Your task to perform on an android device: see tabs open on other devices in the chrome app Image 0: 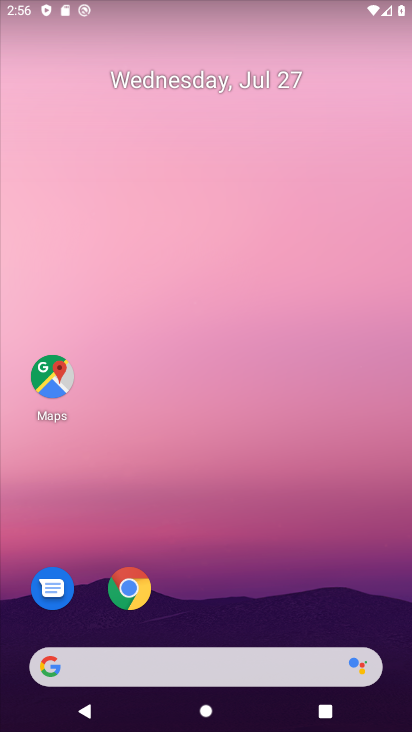
Step 0: drag from (306, 605) to (245, 157)
Your task to perform on an android device: see tabs open on other devices in the chrome app Image 1: 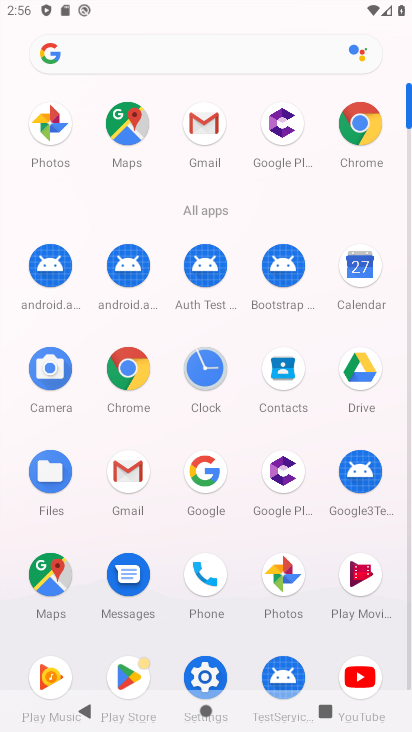
Step 1: click (350, 126)
Your task to perform on an android device: see tabs open on other devices in the chrome app Image 2: 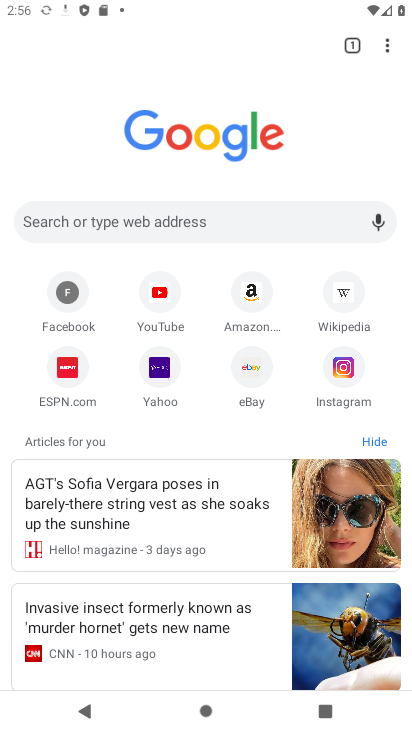
Step 2: click (386, 55)
Your task to perform on an android device: see tabs open on other devices in the chrome app Image 3: 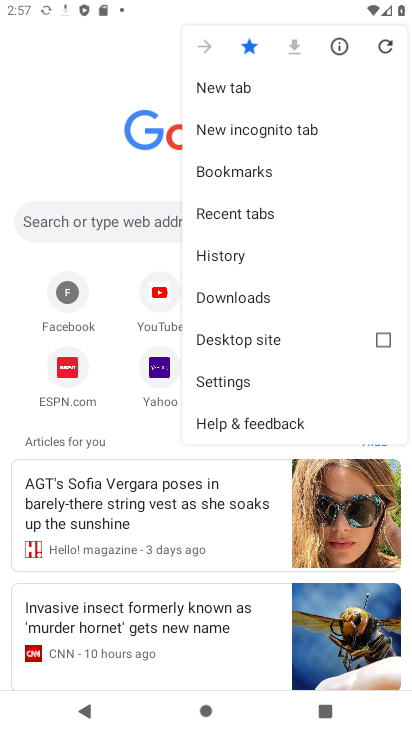
Step 3: click (292, 216)
Your task to perform on an android device: see tabs open on other devices in the chrome app Image 4: 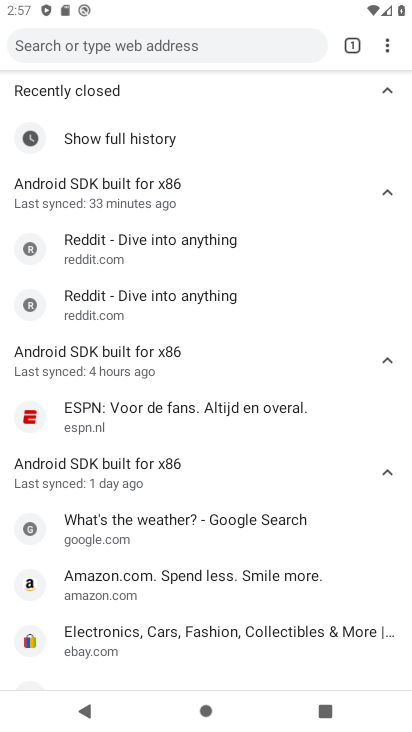
Step 4: task complete